Your task to perform on an android device: turn off location Image 0: 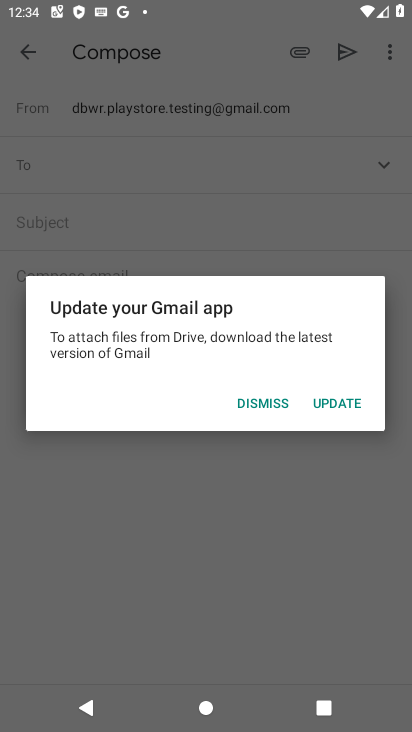
Step 0: press home button
Your task to perform on an android device: turn off location Image 1: 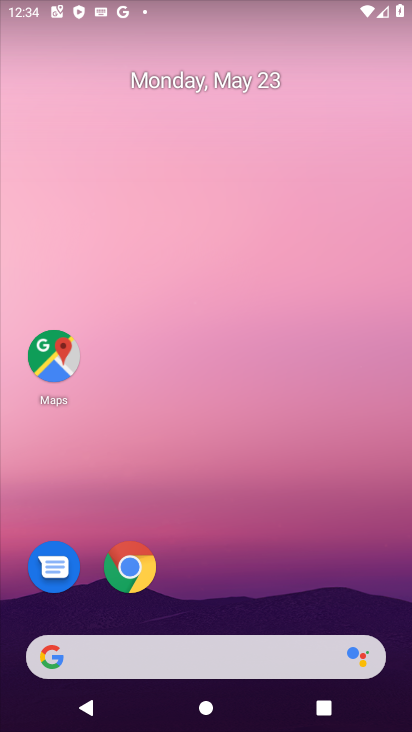
Step 1: drag from (238, 577) to (237, 144)
Your task to perform on an android device: turn off location Image 2: 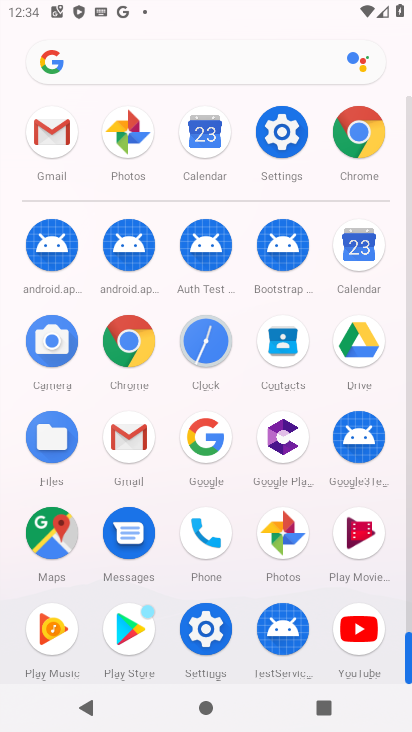
Step 2: click (296, 128)
Your task to perform on an android device: turn off location Image 3: 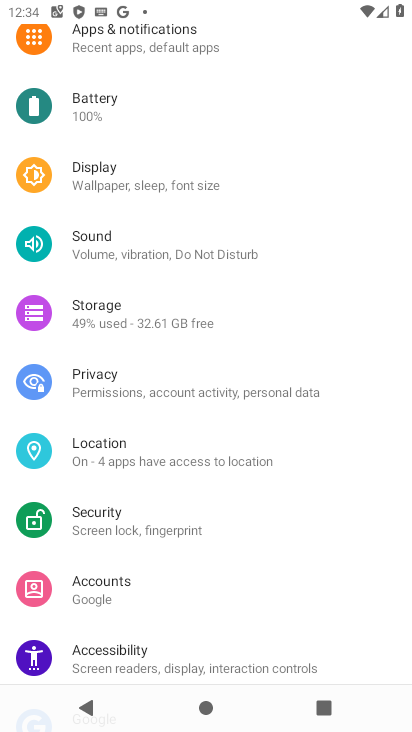
Step 3: click (190, 443)
Your task to perform on an android device: turn off location Image 4: 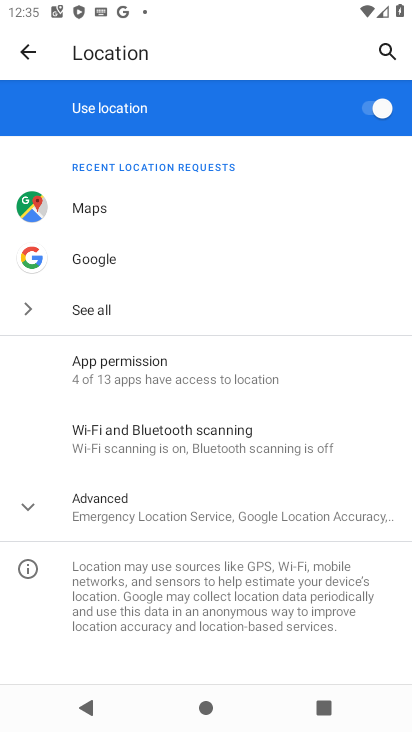
Step 4: click (377, 102)
Your task to perform on an android device: turn off location Image 5: 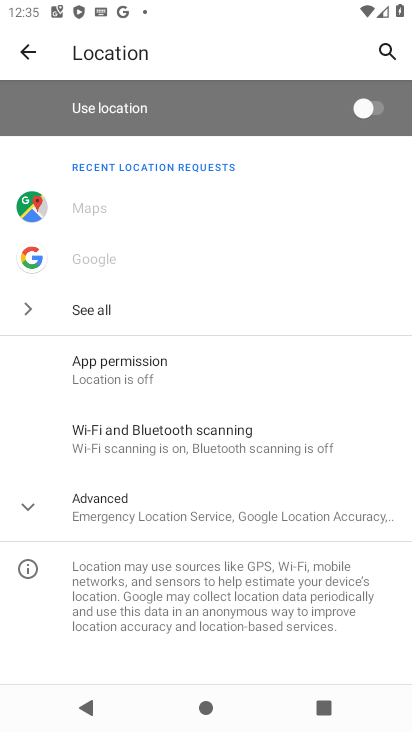
Step 5: task complete